Your task to perform on an android device: Open Chrome and go to settings Image 0: 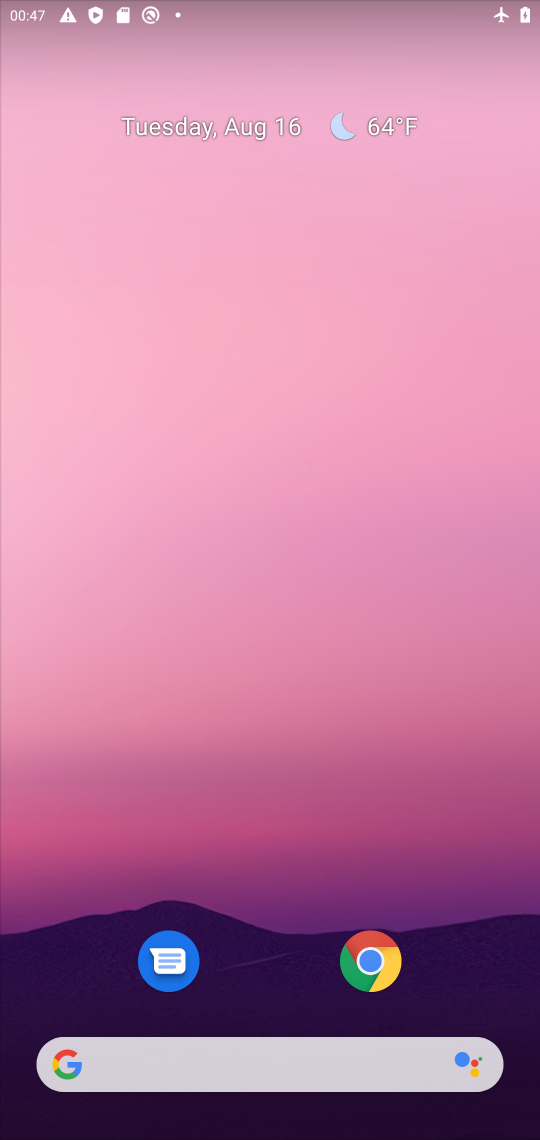
Step 0: press home button
Your task to perform on an android device: Open Chrome and go to settings Image 1: 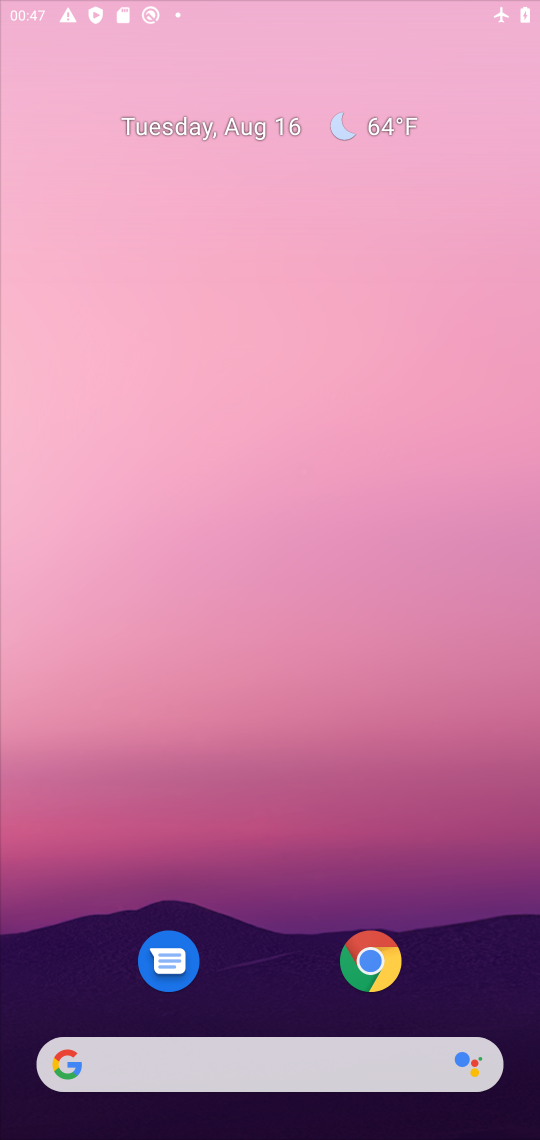
Step 1: drag from (286, 129) to (267, 677)
Your task to perform on an android device: Open Chrome and go to settings Image 2: 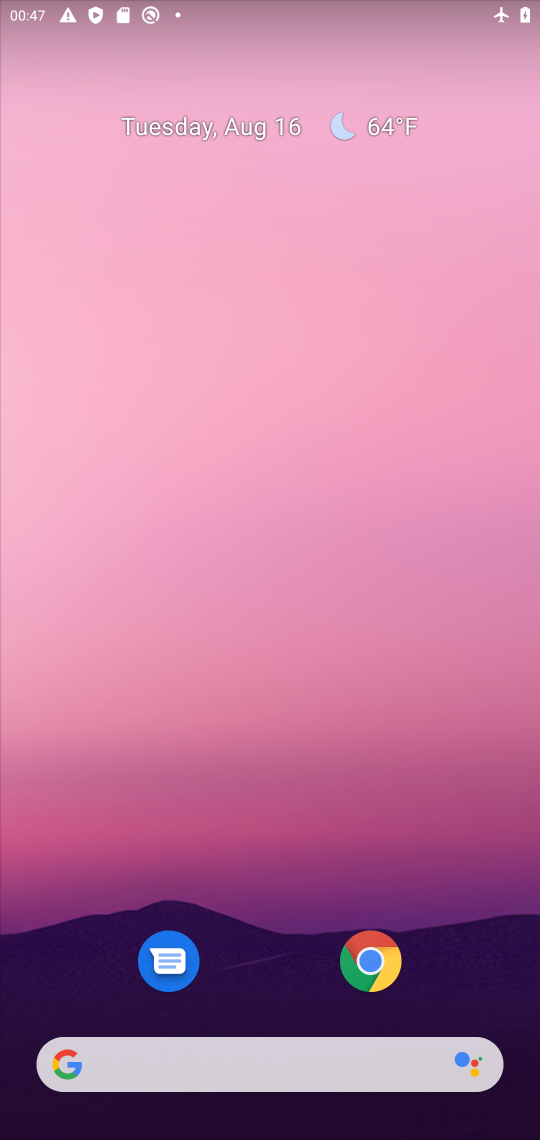
Step 2: drag from (249, 915) to (354, 6)
Your task to perform on an android device: Open Chrome and go to settings Image 3: 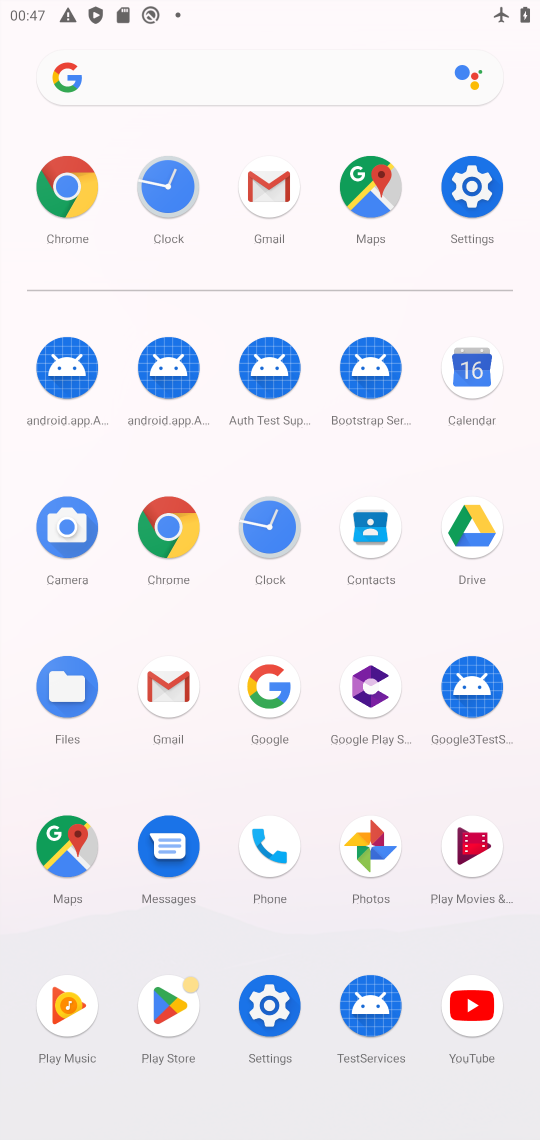
Step 3: click (40, 167)
Your task to perform on an android device: Open Chrome and go to settings Image 4: 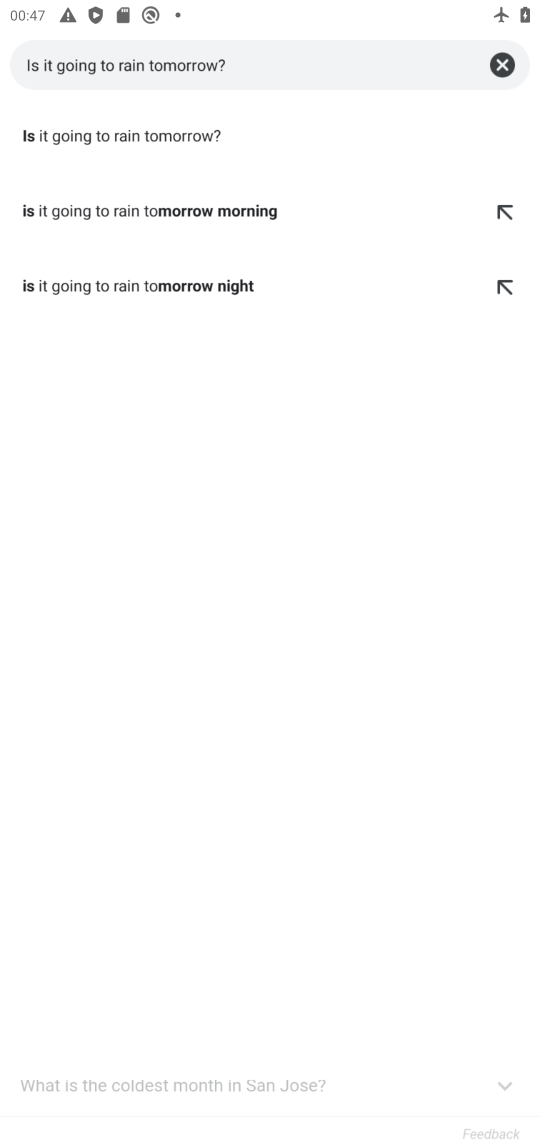
Step 4: click (497, 64)
Your task to perform on an android device: Open Chrome and go to settings Image 5: 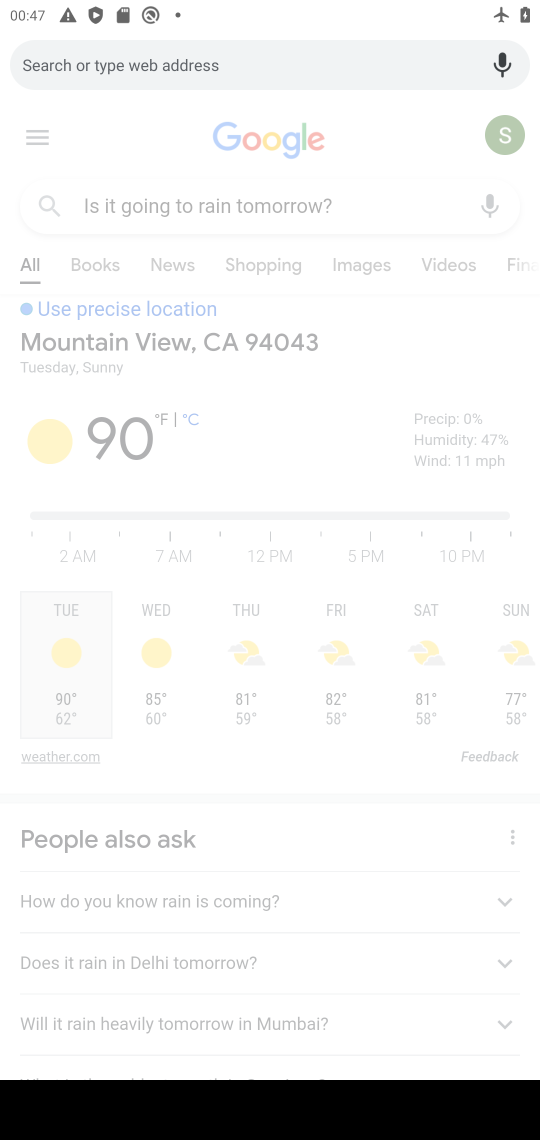
Step 5: click (250, 270)
Your task to perform on an android device: Open Chrome and go to settings Image 6: 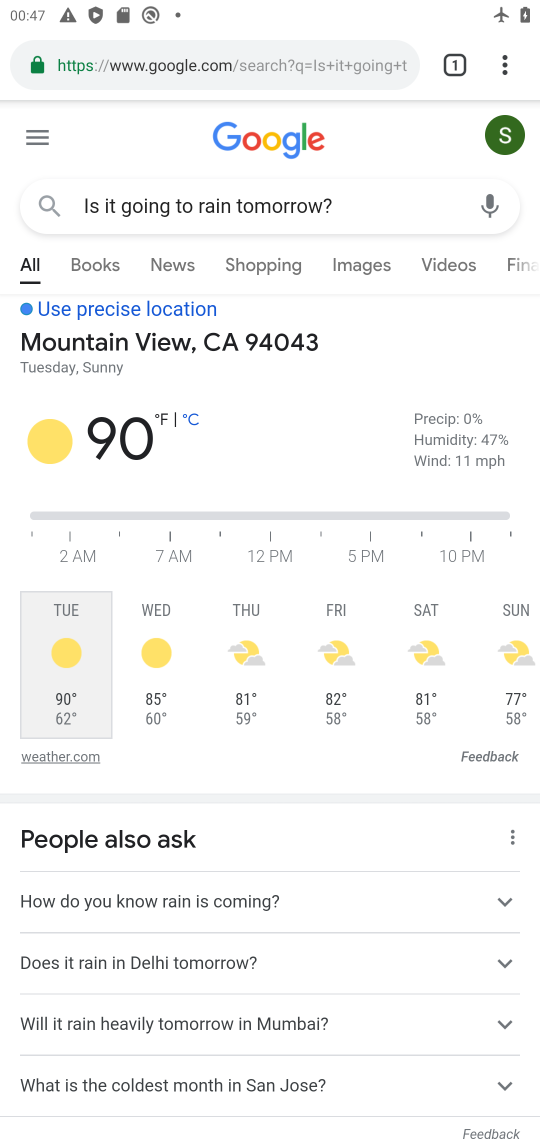
Step 6: task complete